Your task to perform on an android device: turn off data saver in the chrome app Image 0: 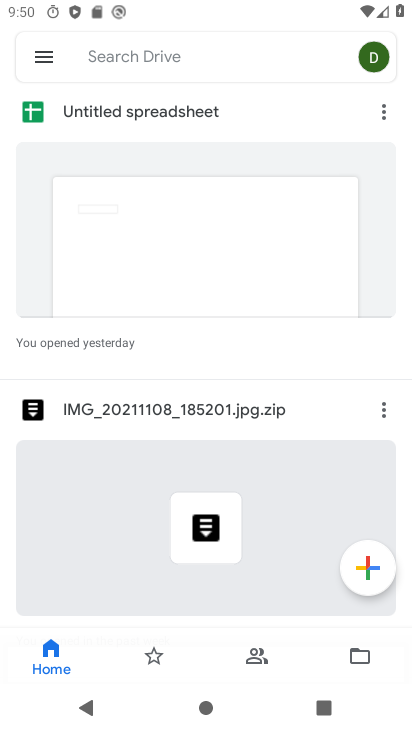
Step 0: press home button
Your task to perform on an android device: turn off data saver in the chrome app Image 1: 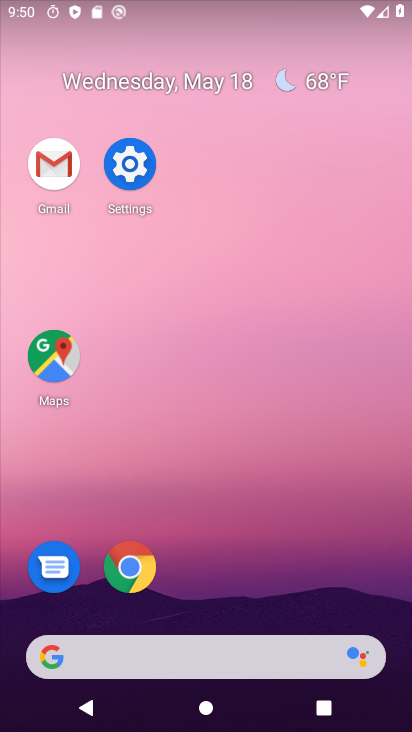
Step 1: click (118, 577)
Your task to perform on an android device: turn off data saver in the chrome app Image 2: 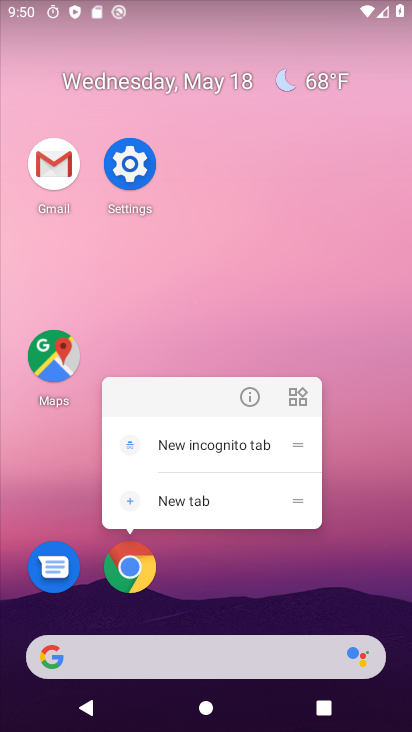
Step 2: click (118, 577)
Your task to perform on an android device: turn off data saver in the chrome app Image 3: 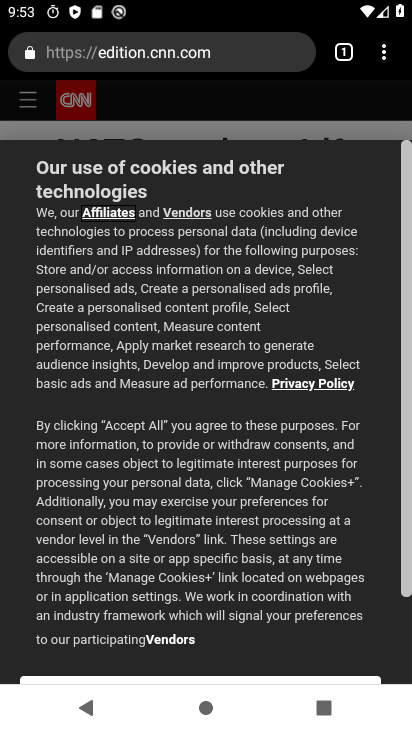
Step 3: click (383, 60)
Your task to perform on an android device: turn off data saver in the chrome app Image 4: 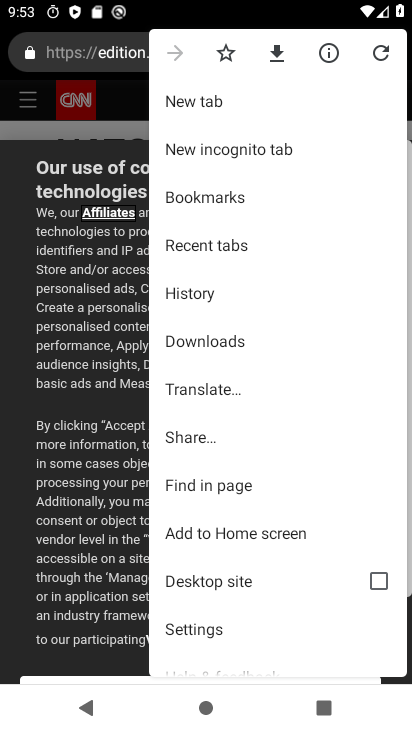
Step 4: drag from (300, 581) to (289, 224)
Your task to perform on an android device: turn off data saver in the chrome app Image 5: 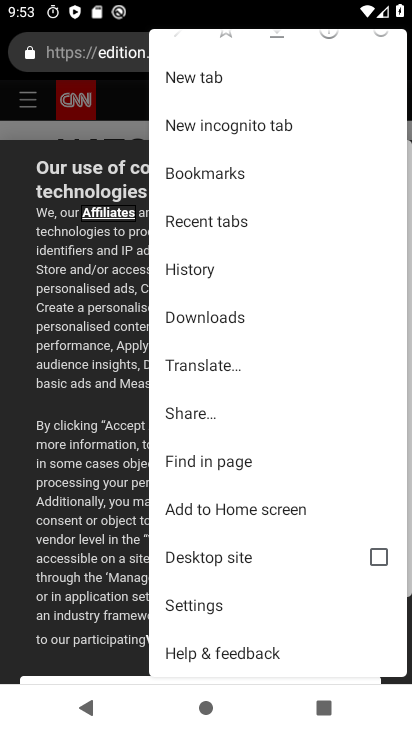
Step 5: click (230, 628)
Your task to perform on an android device: turn off data saver in the chrome app Image 6: 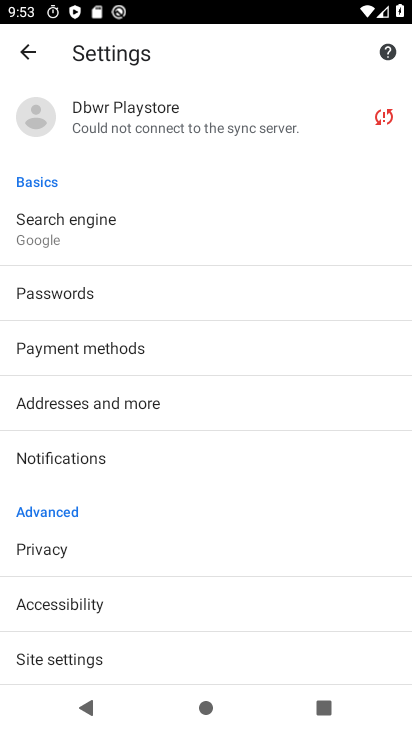
Step 6: drag from (229, 608) to (190, 132)
Your task to perform on an android device: turn off data saver in the chrome app Image 7: 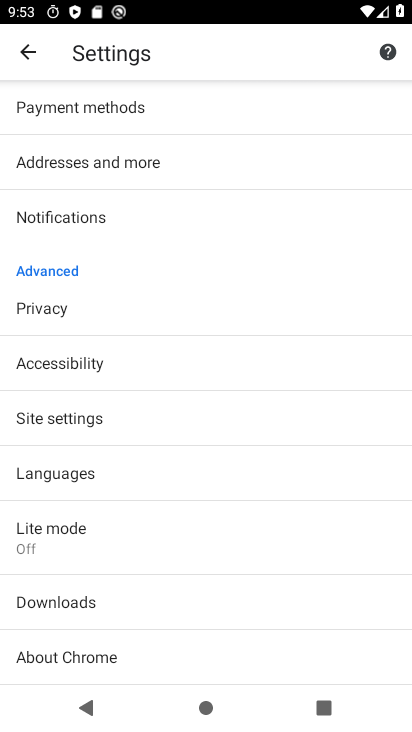
Step 7: click (106, 515)
Your task to perform on an android device: turn off data saver in the chrome app Image 8: 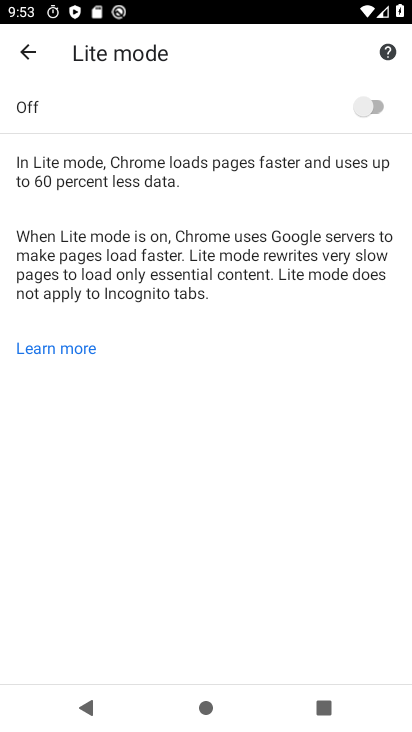
Step 8: task complete